Your task to perform on an android device: turn off translation in the chrome app Image 0: 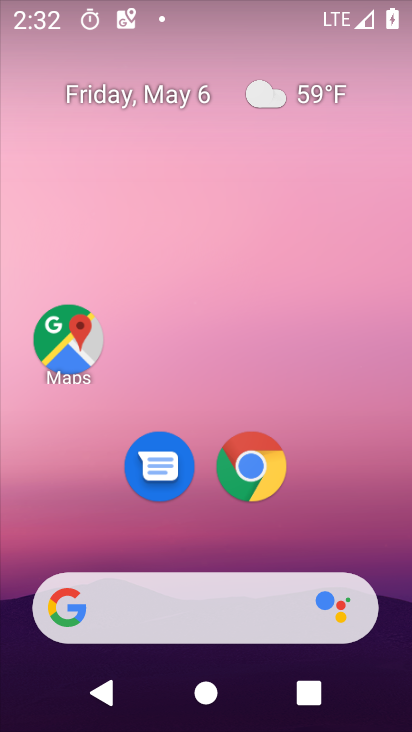
Step 0: click (250, 455)
Your task to perform on an android device: turn off translation in the chrome app Image 1: 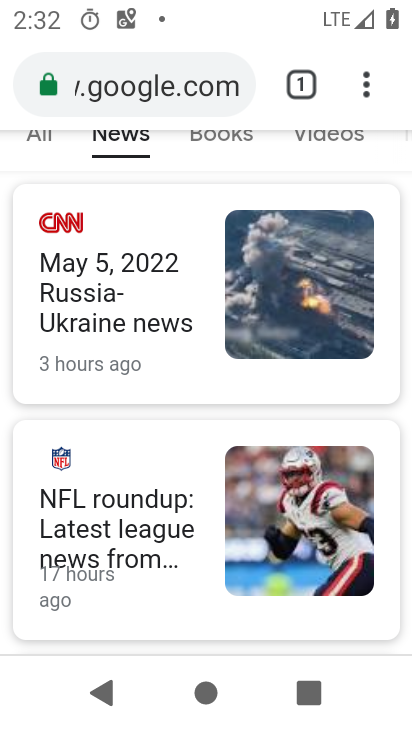
Step 1: drag from (363, 78) to (157, 519)
Your task to perform on an android device: turn off translation in the chrome app Image 2: 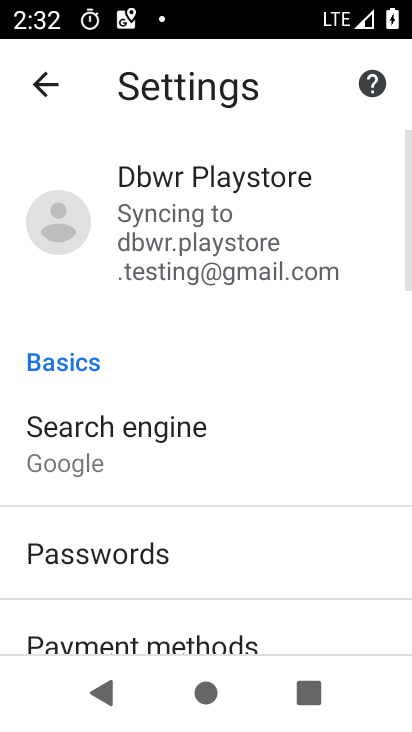
Step 2: drag from (208, 573) to (341, 20)
Your task to perform on an android device: turn off translation in the chrome app Image 3: 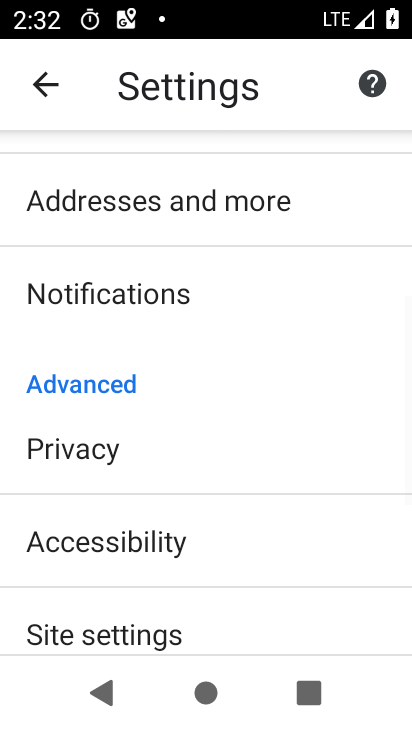
Step 3: drag from (238, 588) to (330, 170)
Your task to perform on an android device: turn off translation in the chrome app Image 4: 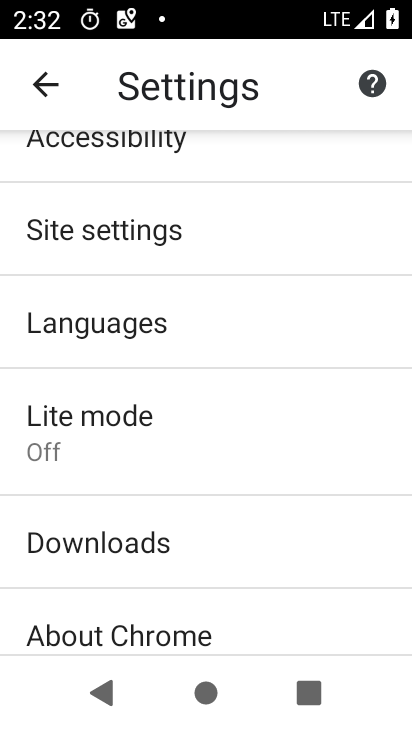
Step 4: click (166, 321)
Your task to perform on an android device: turn off translation in the chrome app Image 5: 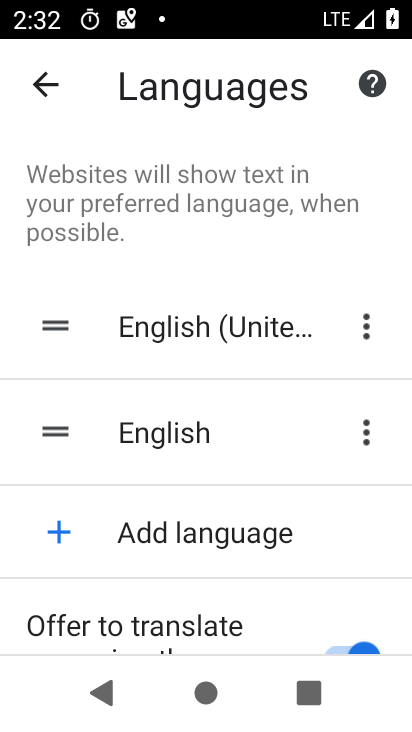
Step 5: drag from (234, 605) to (287, 237)
Your task to perform on an android device: turn off translation in the chrome app Image 6: 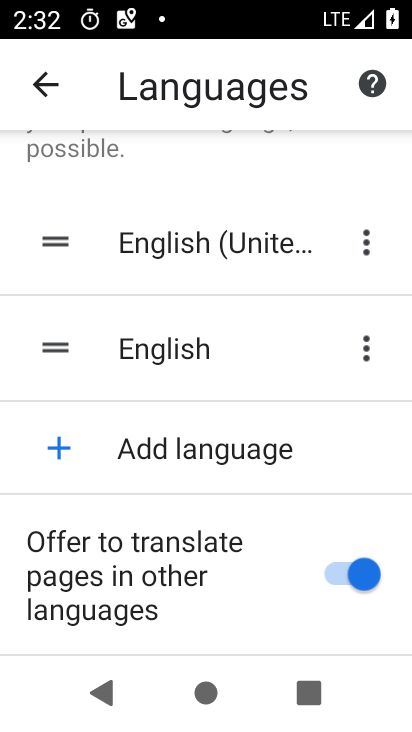
Step 6: click (330, 570)
Your task to perform on an android device: turn off translation in the chrome app Image 7: 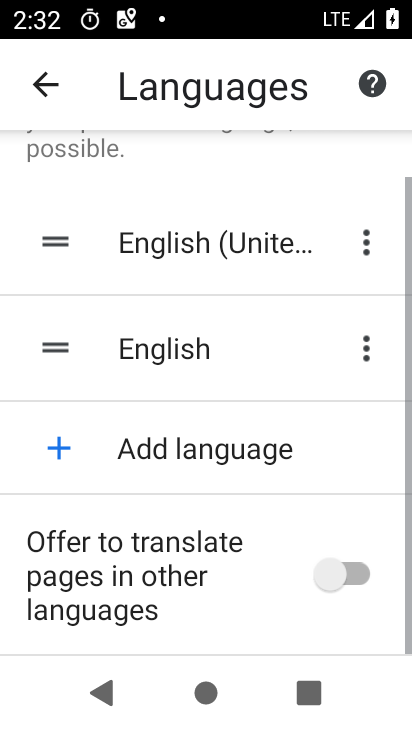
Step 7: task complete